Your task to perform on an android device: Open sound settings Image 0: 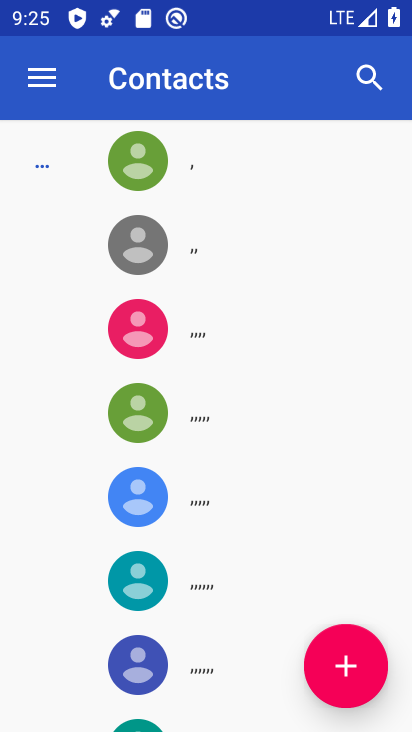
Step 0: press back button
Your task to perform on an android device: Open sound settings Image 1: 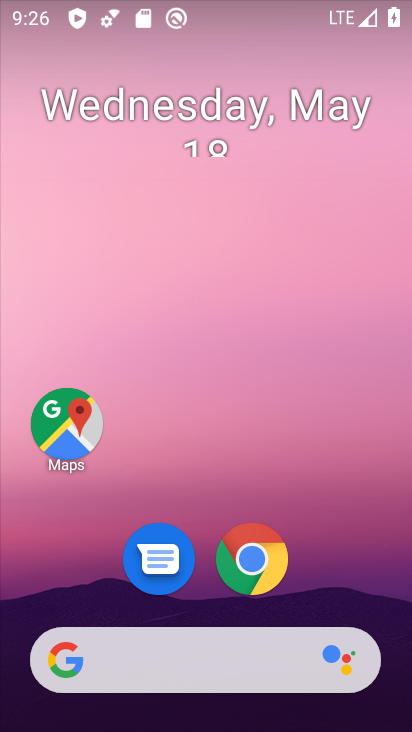
Step 1: drag from (313, 550) to (272, 44)
Your task to perform on an android device: Open sound settings Image 2: 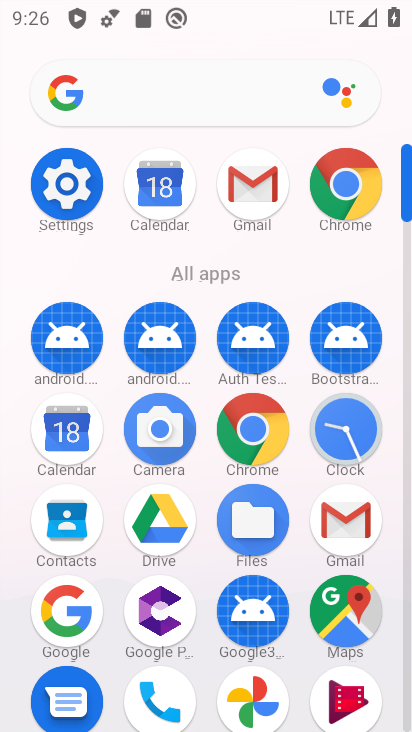
Step 2: drag from (7, 570) to (36, 247)
Your task to perform on an android device: Open sound settings Image 3: 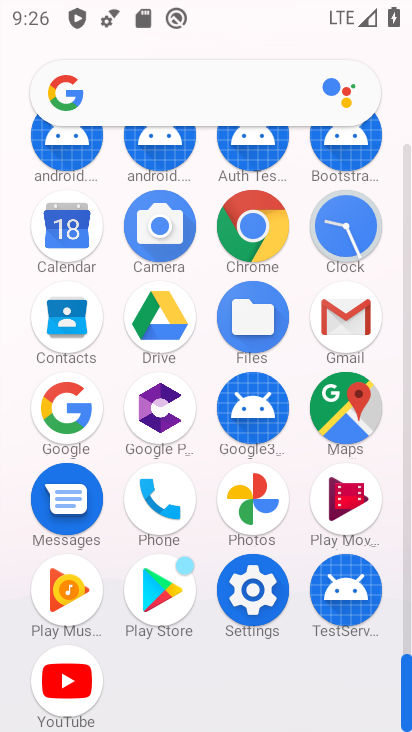
Step 3: click (250, 588)
Your task to perform on an android device: Open sound settings Image 4: 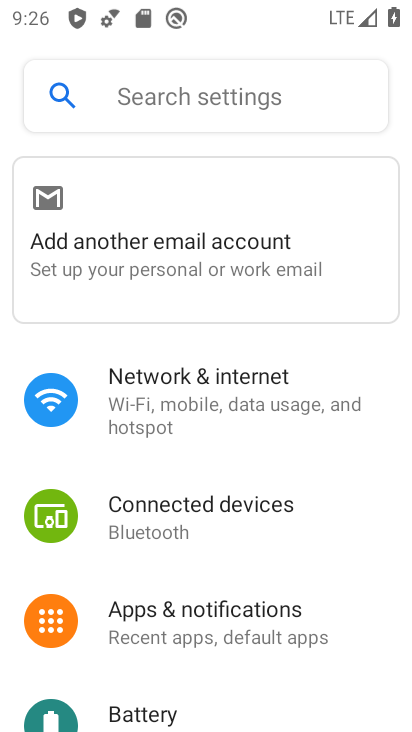
Step 4: drag from (260, 607) to (316, 210)
Your task to perform on an android device: Open sound settings Image 5: 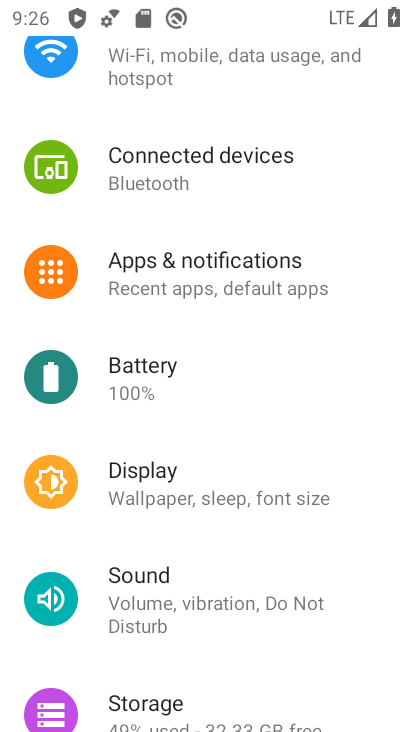
Step 5: click (165, 597)
Your task to perform on an android device: Open sound settings Image 6: 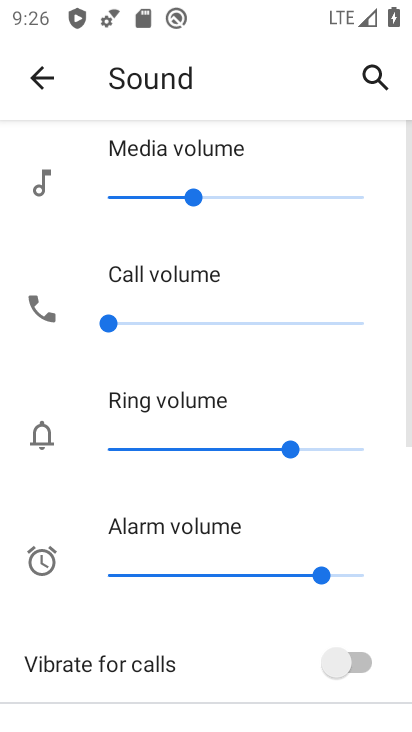
Step 6: drag from (218, 516) to (219, 129)
Your task to perform on an android device: Open sound settings Image 7: 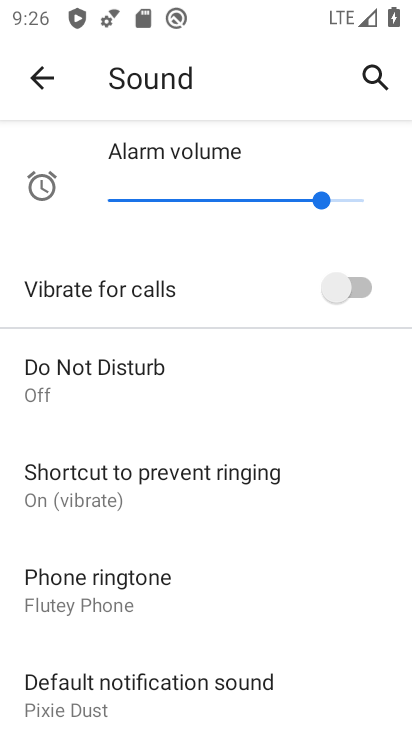
Step 7: drag from (209, 555) to (218, 194)
Your task to perform on an android device: Open sound settings Image 8: 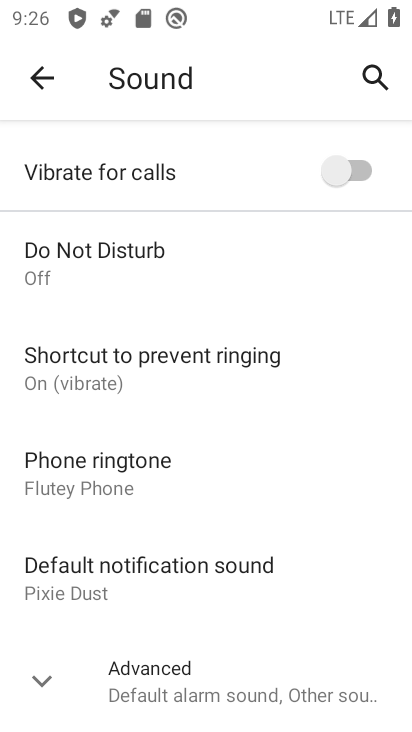
Step 8: click (48, 673)
Your task to perform on an android device: Open sound settings Image 9: 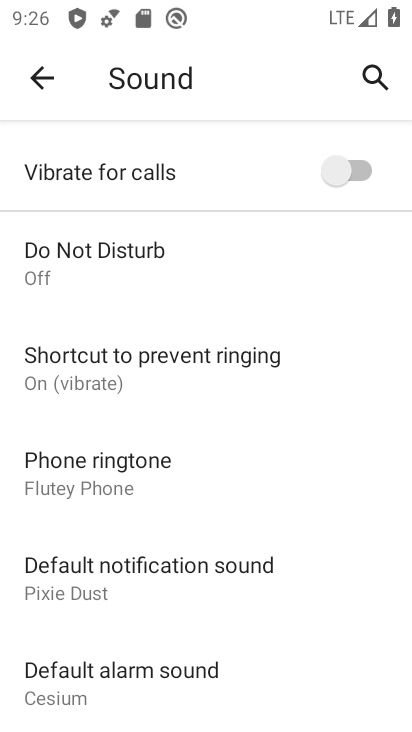
Step 9: task complete